Your task to perform on an android device: turn on showing notifications on the lock screen Image 0: 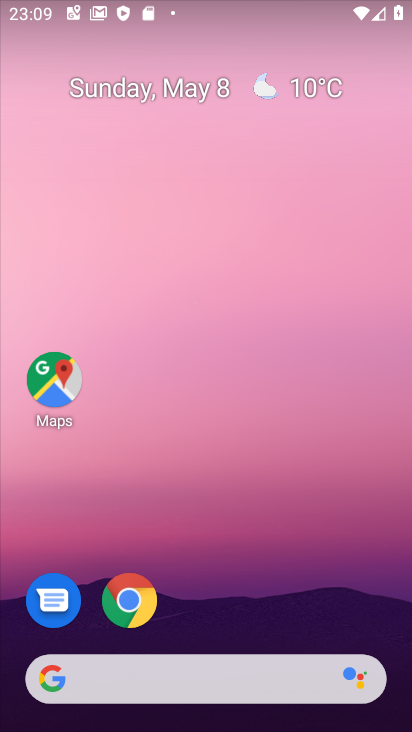
Step 0: drag from (204, 625) to (364, 21)
Your task to perform on an android device: turn on showing notifications on the lock screen Image 1: 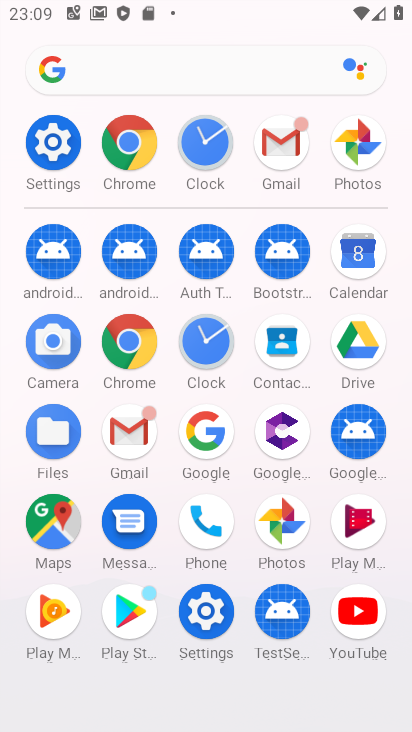
Step 1: click (58, 134)
Your task to perform on an android device: turn on showing notifications on the lock screen Image 2: 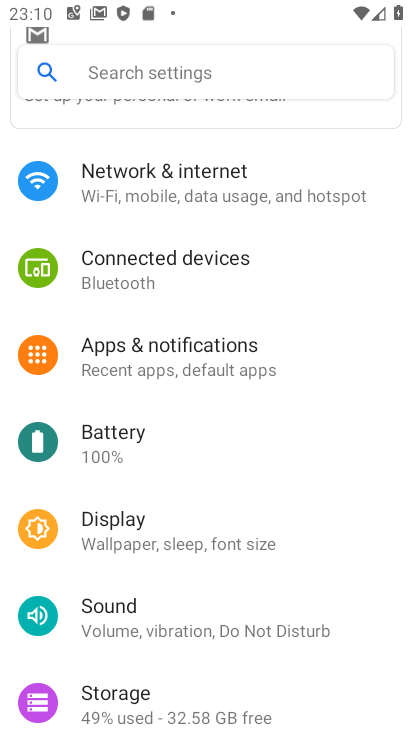
Step 2: click (318, 367)
Your task to perform on an android device: turn on showing notifications on the lock screen Image 3: 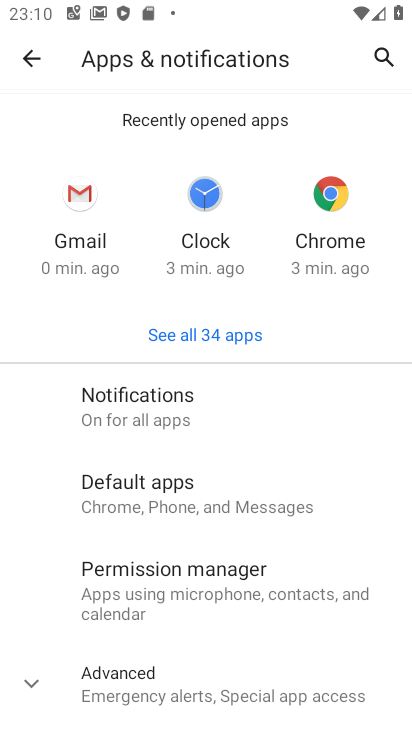
Step 3: click (116, 390)
Your task to perform on an android device: turn on showing notifications on the lock screen Image 4: 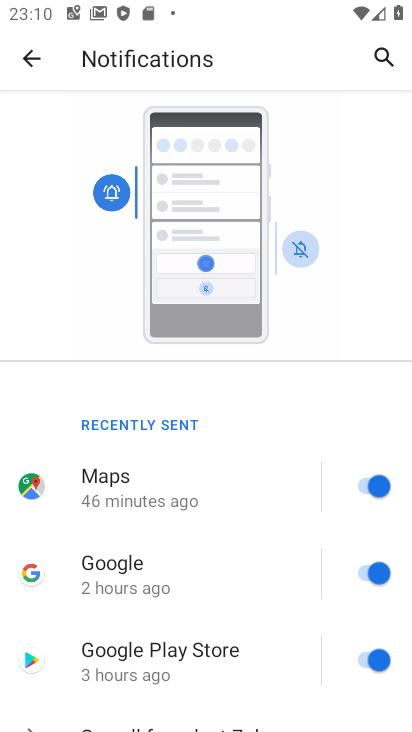
Step 4: drag from (105, 584) to (229, 1)
Your task to perform on an android device: turn on showing notifications on the lock screen Image 5: 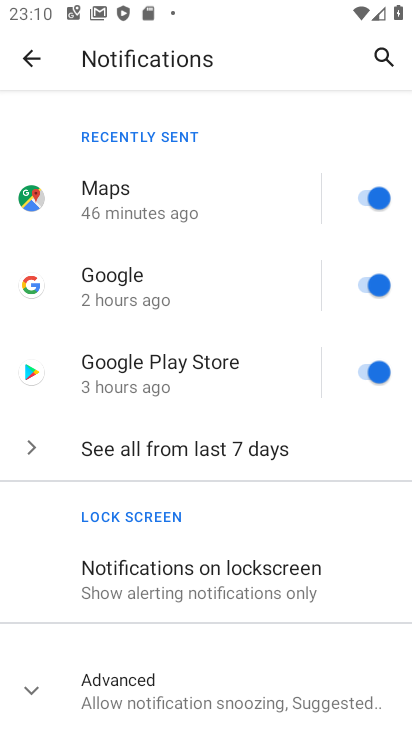
Step 5: click (198, 581)
Your task to perform on an android device: turn on showing notifications on the lock screen Image 6: 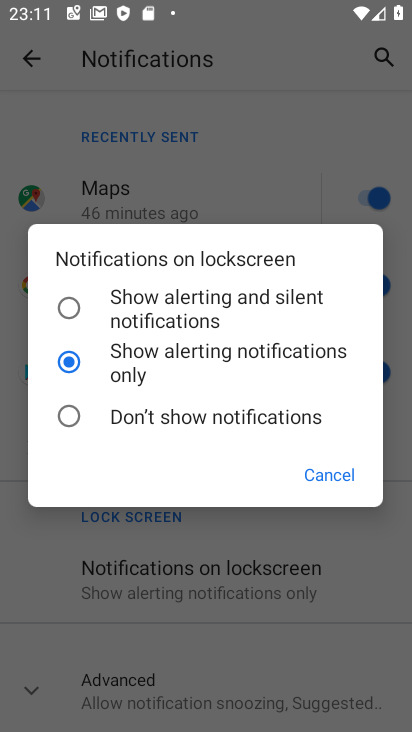
Step 6: click (69, 306)
Your task to perform on an android device: turn on showing notifications on the lock screen Image 7: 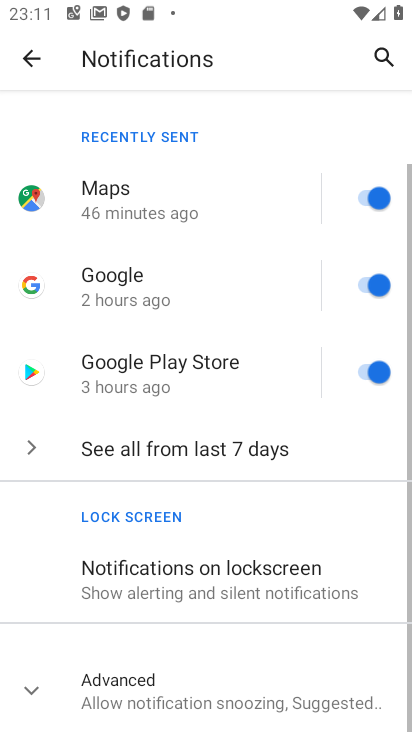
Step 7: task complete